Your task to perform on an android device: Open the stopwatch Image 0: 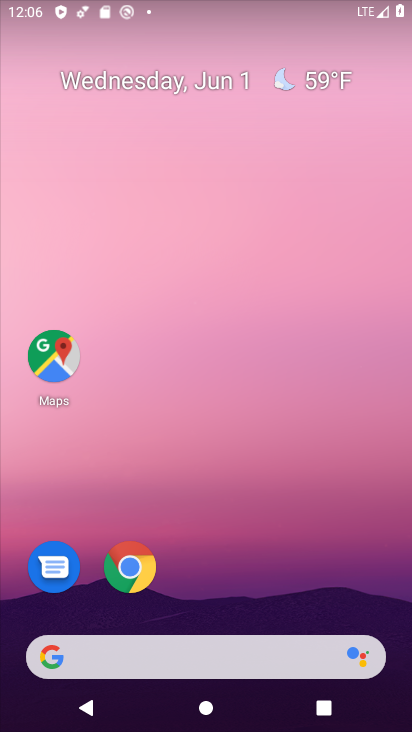
Step 0: drag from (260, 620) to (281, 56)
Your task to perform on an android device: Open the stopwatch Image 1: 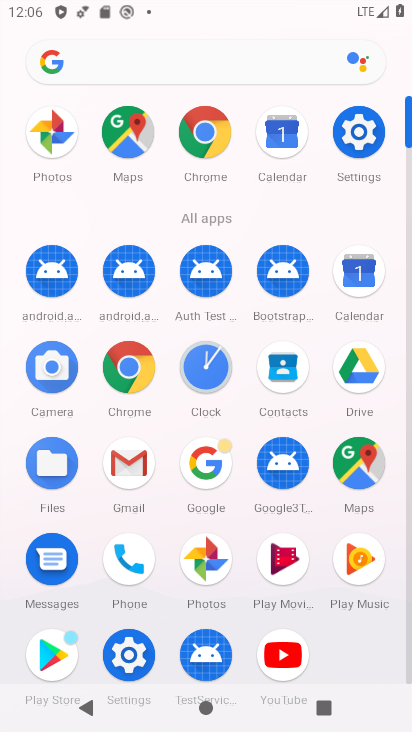
Step 1: click (214, 368)
Your task to perform on an android device: Open the stopwatch Image 2: 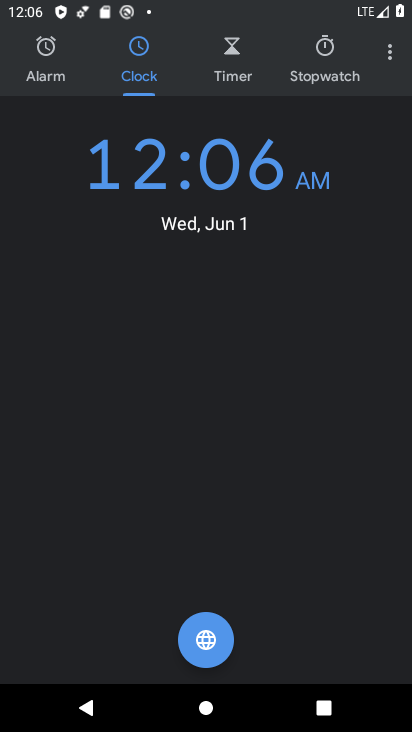
Step 2: click (333, 75)
Your task to perform on an android device: Open the stopwatch Image 3: 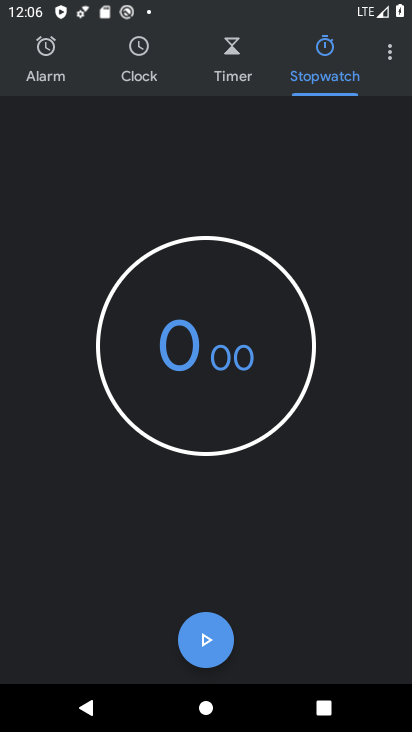
Step 3: task complete